Your task to perform on an android device: allow cookies in the chrome app Image 0: 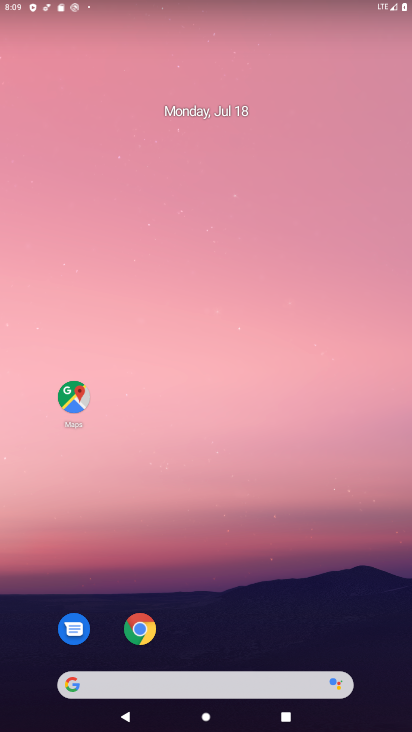
Step 0: click (89, 371)
Your task to perform on an android device: allow cookies in the chrome app Image 1: 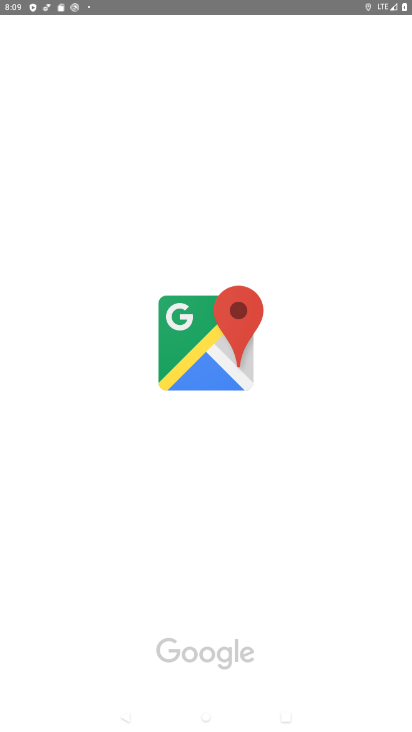
Step 1: press home button
Your task to perform on an android device: allow cookies in the chrome app Image 2: 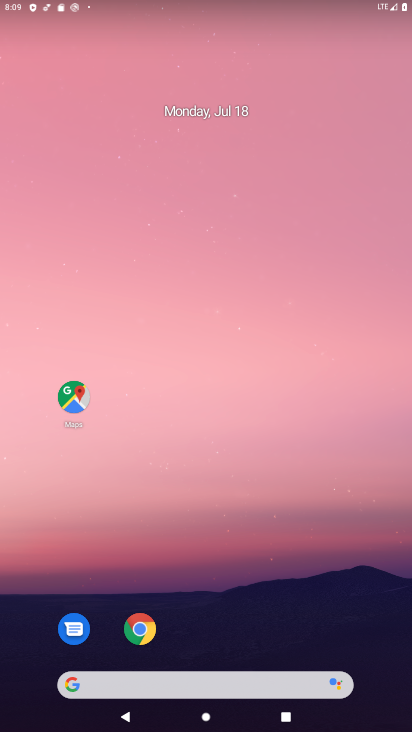
Step 2: click (158, 650)
Your task to perform on an android device: allow cookies in the chrome app Image 3: 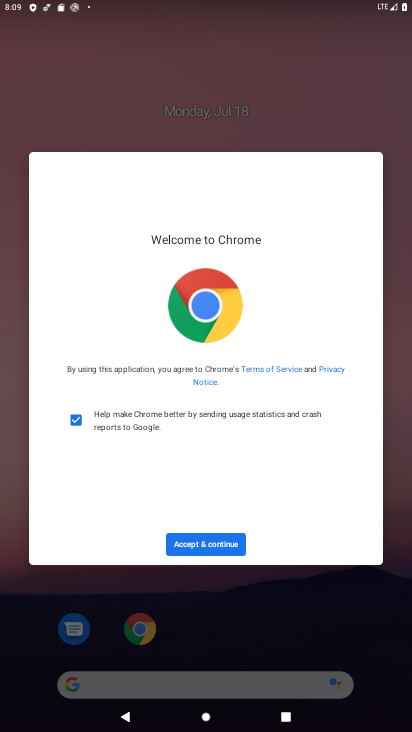
Step 3: click (212, 542)
Your task to perform on an android device: allow cookies in the chrome app Image 4: 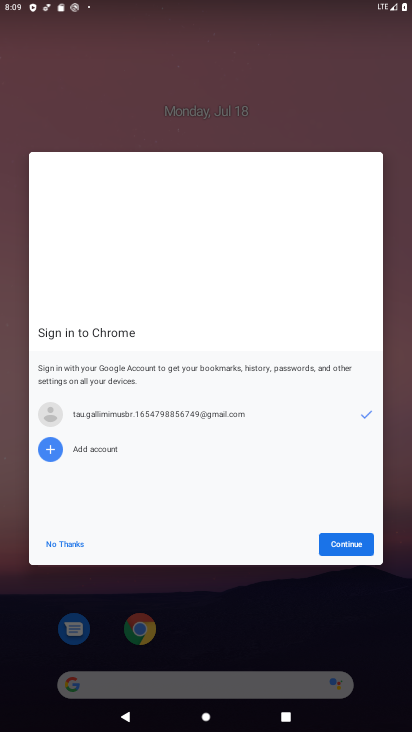
Step 4: click (338, 544)
Your task to perform on an android device: allow cookies in the chrome app Image 5: 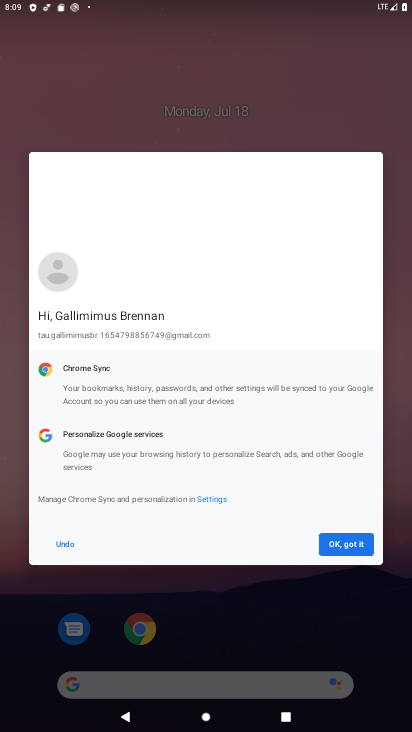
Step 5: click (338, 544)
Your task to perform on an android device: allow cookies in the chrome app Image 6: 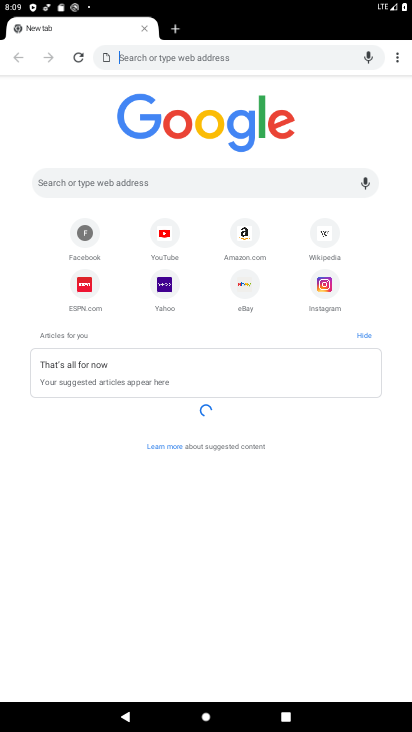
Step 6: click (395, 60)
Your task to perform on an android device: allow cookies in the chrome app Image 7: 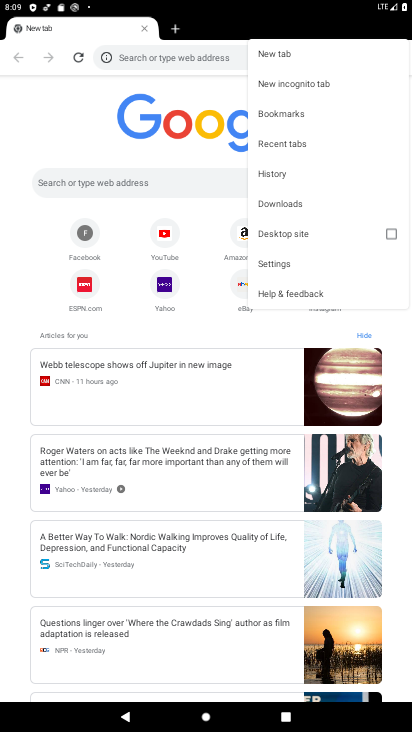
Step 7: click (265, 266)
Your task to perform on an android device: allow cookies in the chrome app Image 8: 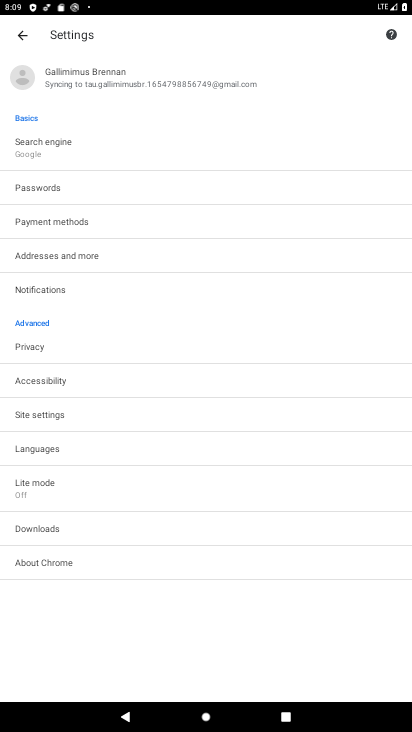
Step 8: click (53, 412)
Your task to perform on an android device: allow cookies in the chrome app Image 9: 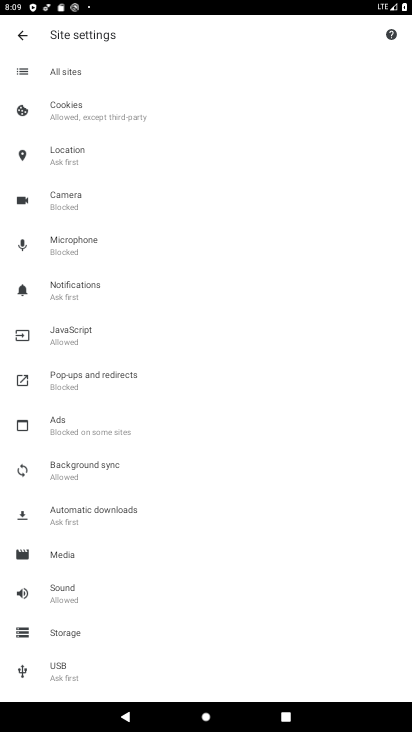
Step 9: click (96, 113)
Your task to perform on an android device: allow cookies in the chrome app Image 10: 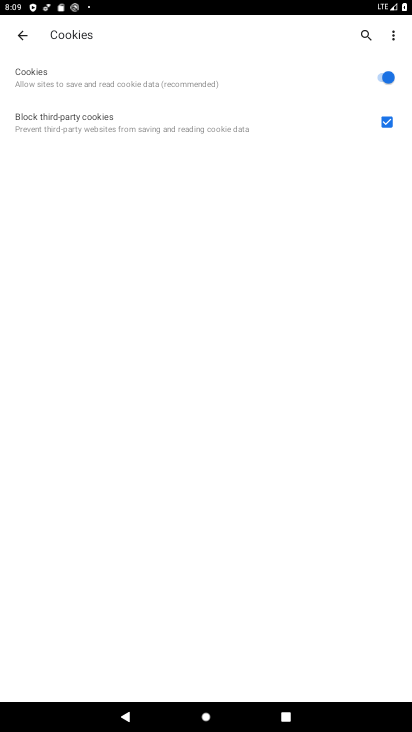
Step 10: task complete